Your task to perform on an android device: turn on location history Image 0: 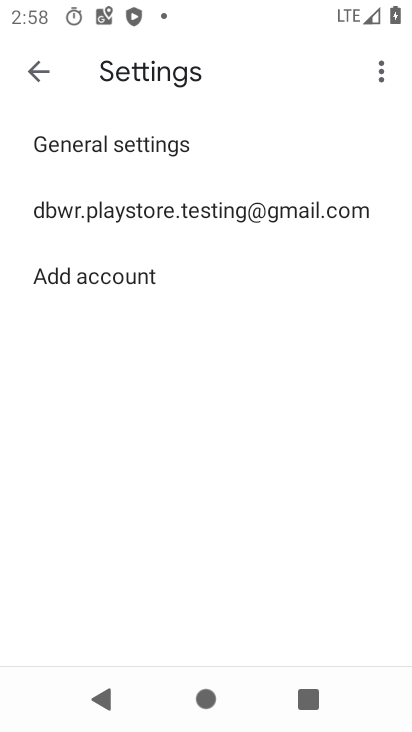
Step 0: press home button
Your task to perform on an android device: turn on location history Image 1: 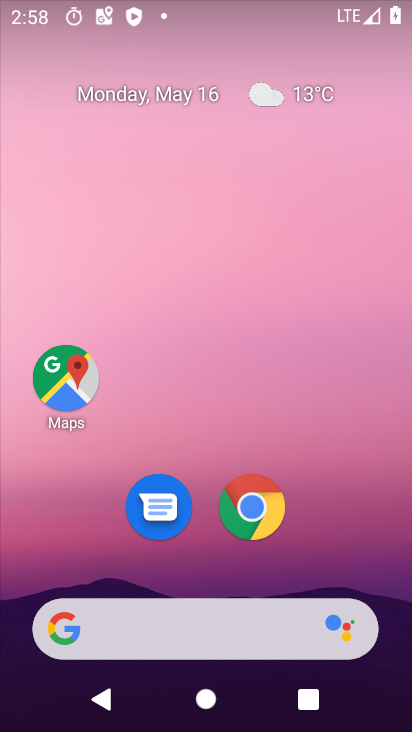
Step 1: drag from (372, 562) to (365, 224)
Your task to perform on an android device: turn on location history Image 2: 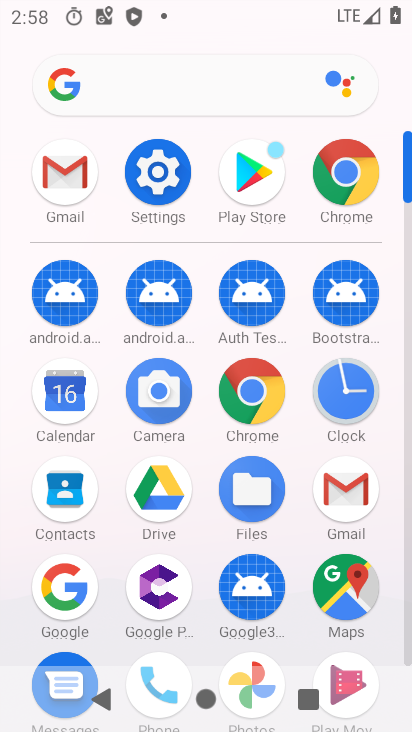
Step 2: click (161, 180)
Your task to perform on an android device: turn on location history Image 3: 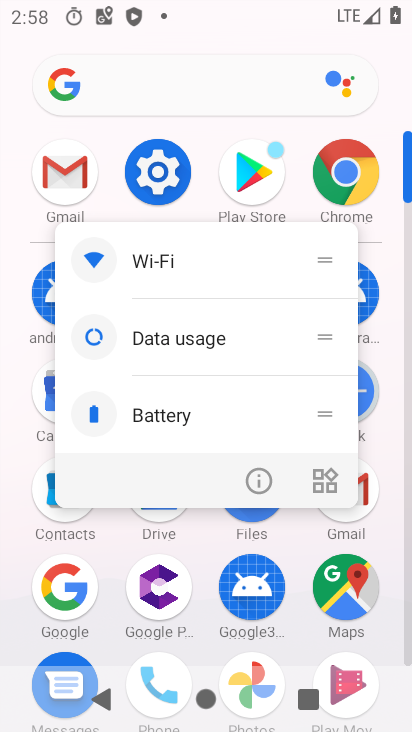
Step 3: click (161, 180)
Your task to perform on an android device: turn on location history Image 4: 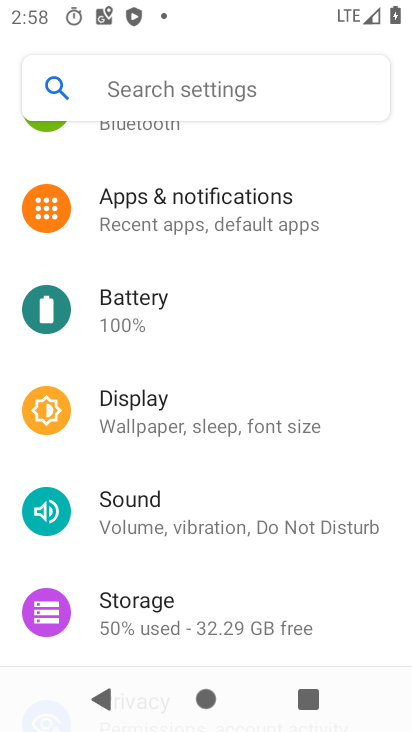
Step 4: drag from (357, 617) to (362, 417)
Your task to perform on an android device: turn on location history Image 5: 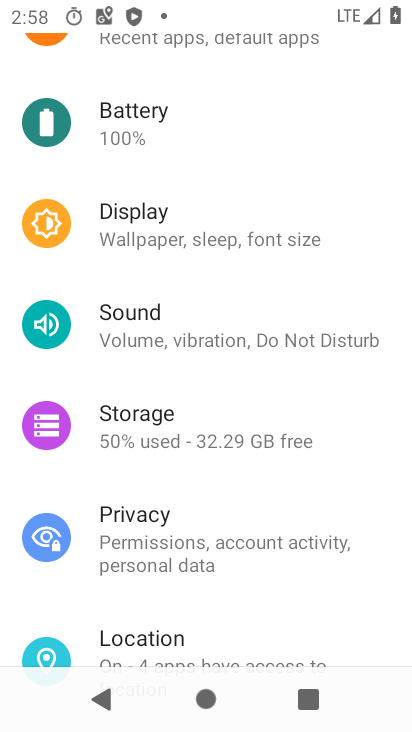
Step 5: drag from (362, 603) to (370, 391)
Your task to perform on an android device: turn on location history Image 6: 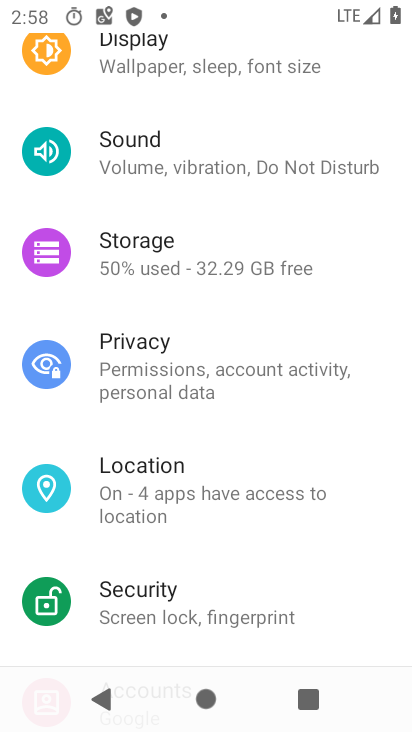
Step 6: drag from (362, 622) to (357, 469)
Your task to perform on an android device: turn on location history Image 7: 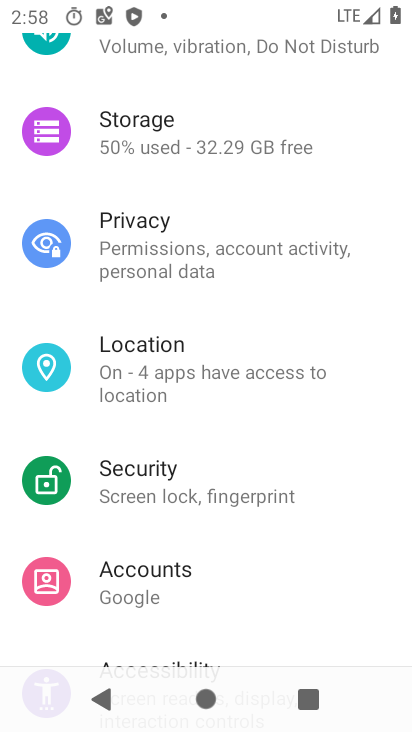
Step 7: click (244, 375)
Your task to perform on an android device: turn on location history Image 8: 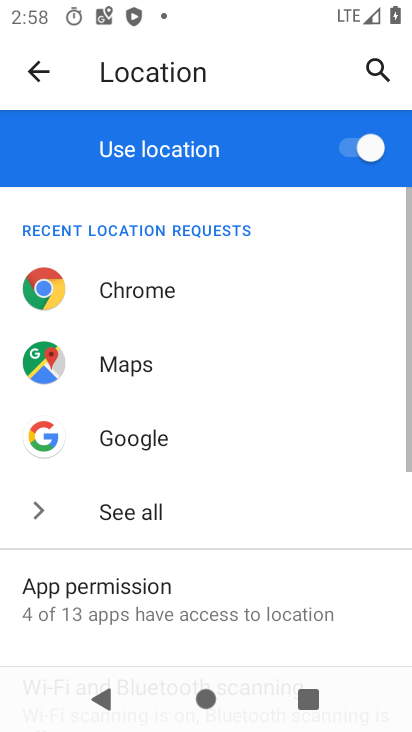
Step 8: drag from (349, 624) to (360, 451)
Your task to perform on an android device: turn on location history Image 9: 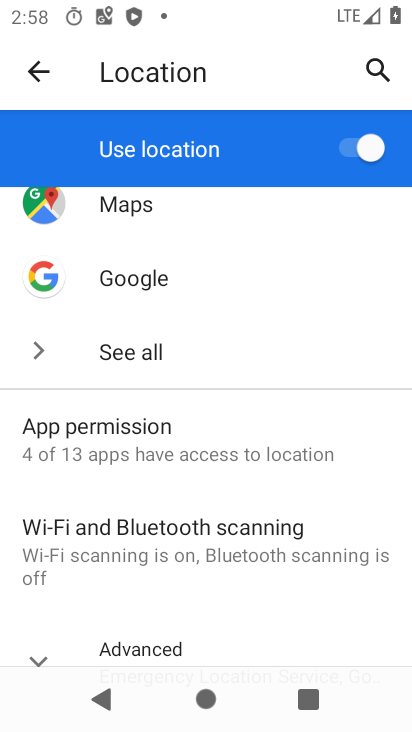
Step 9: drag from (331, 607) to (346, 403)
Your task to perform on an android device: turn on location history Image 10: 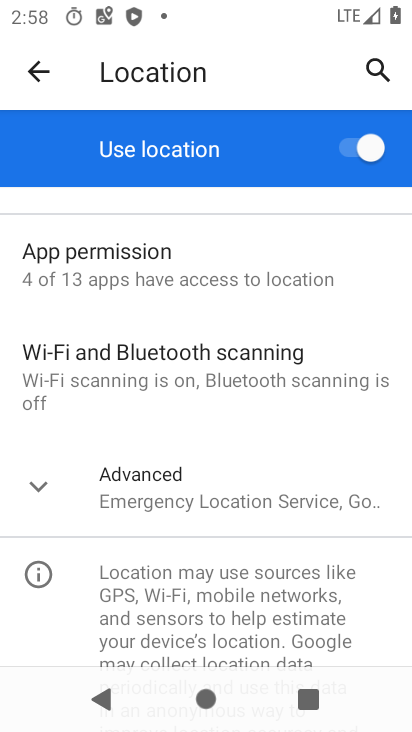
Step 10: click (264, 505)
Your task to perform on an android device: turn on location history Image 11: 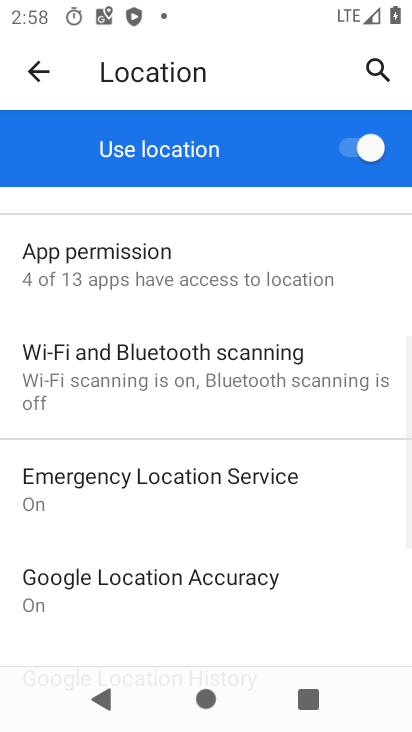
Step 11: drag from (320, 611) to (322, 458)
Your task to perform on an android device: turn on location history Image 12: 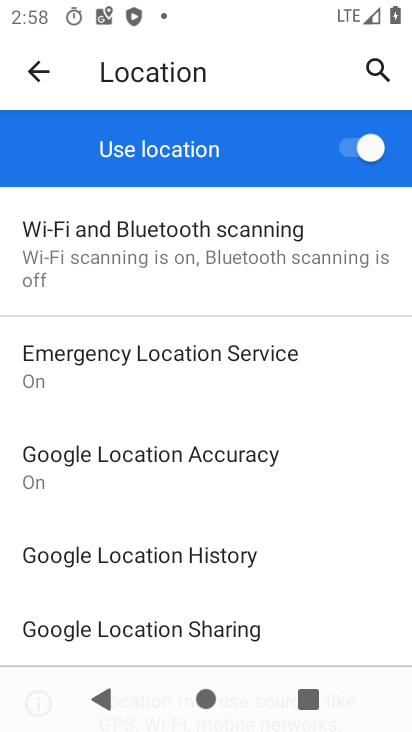
Step 12: click (242, 569)
Your task to perform on an android device: turn on location history Image 13: 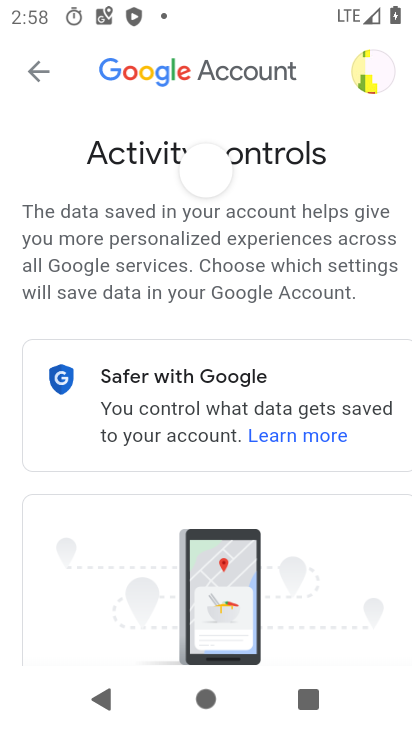
Step 13: task complete